Your task to perform on an android device: What's the weather? Image 0: 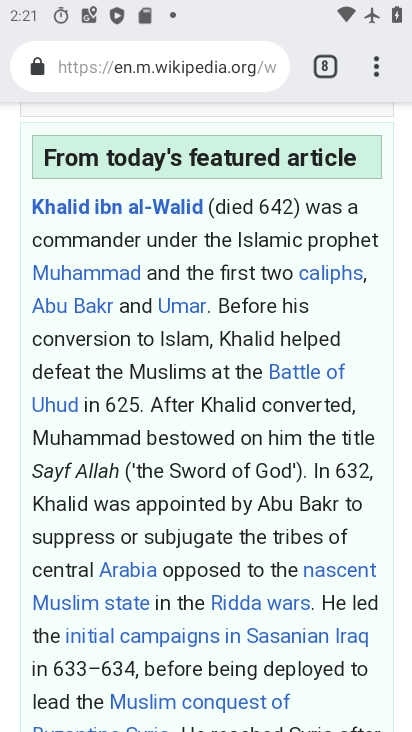
Step 0: press home button
Your task to perform on an android device: What's the weather? Image 1: 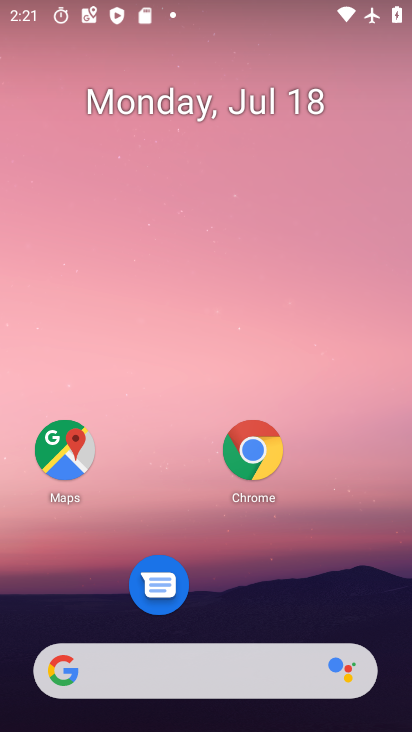
Step 1: click (162, 666)
Your task to perform on an android device: What's the weather? Image 2: 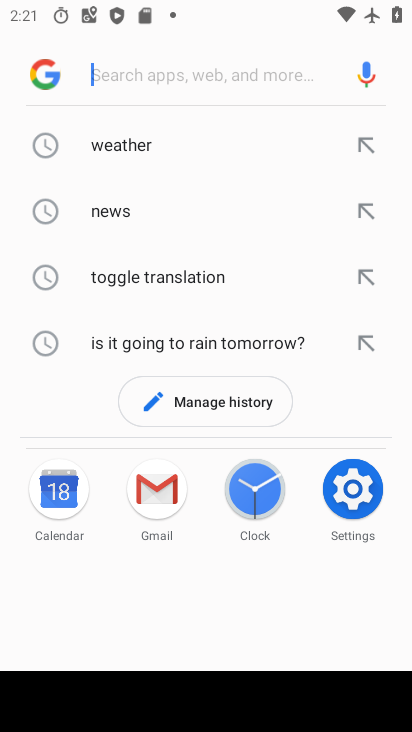
Step 2: click (112, 150)
Your task to perform on an android device: What's the weather? Image 3: 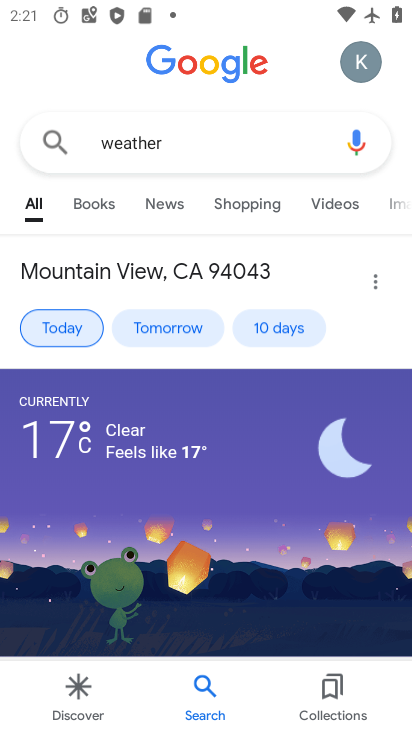
Step 3: task complete